Your task to perform on an android device: add a label to a message in the gmail app Image 0: 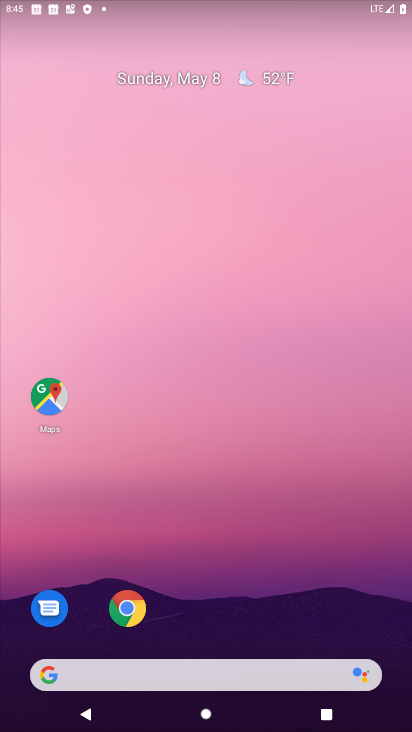
Step 0: drag from (269, 529) to (229, 26)
Your task to perform on an android device: add a label to a message in the gmail app Image 1: 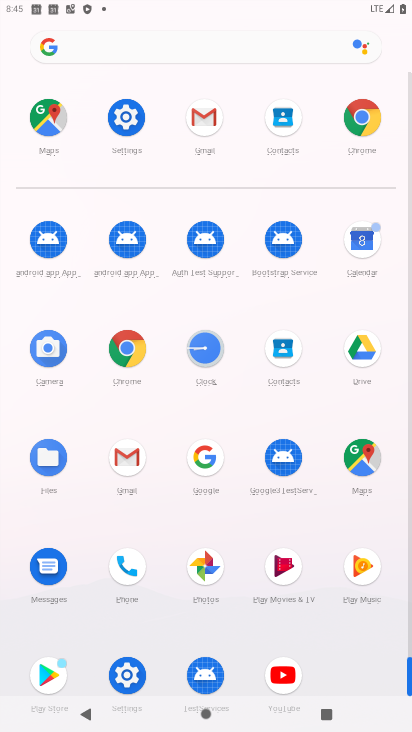
Step 1: drag from (5, 557) to (16, 292)
Your task to perform on an android device: add a label to a message in the gmail app Image 2: 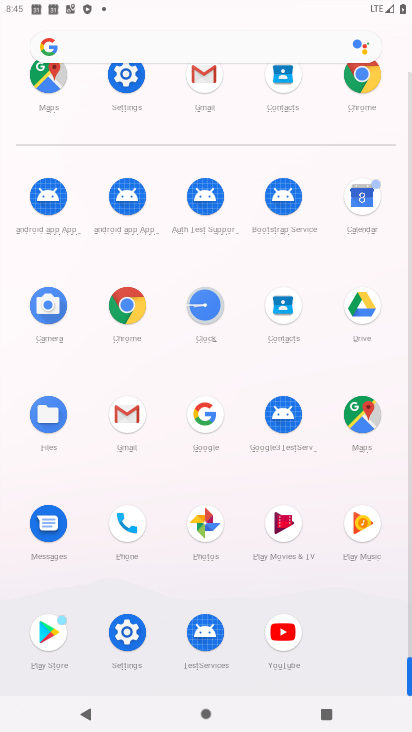
Step 2: click (123, 409)
Your task to perform on an android device: add a label to a message in the gmail app Image 3: 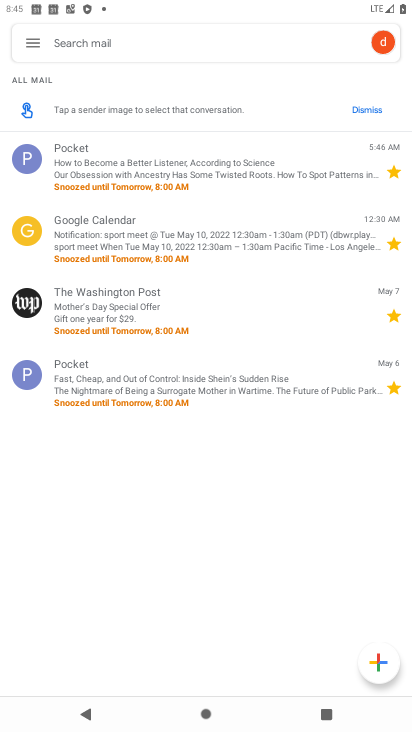
Step 3: click (242, 159)
Your task to perform on an android device: add a label to a message in the gmail app Image 4: 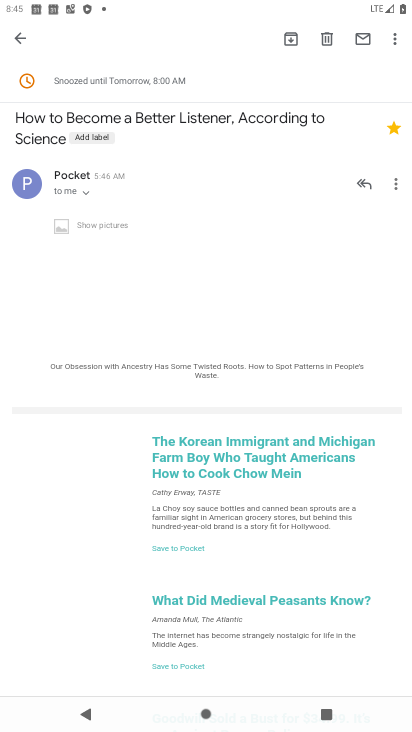
Step 4: click (94, 138)
Your task to perform on an android device: add a label to a message in the gmail app Image 5: 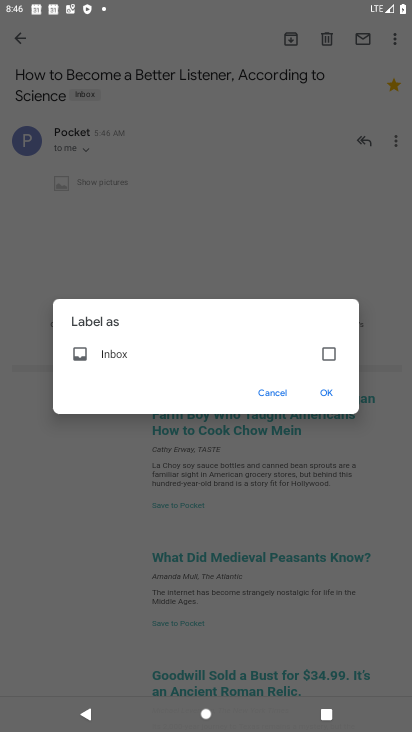
Step 5: click (331, 351)
Your task to perform on an android device: add a label to a message in the gmail app Image 6: 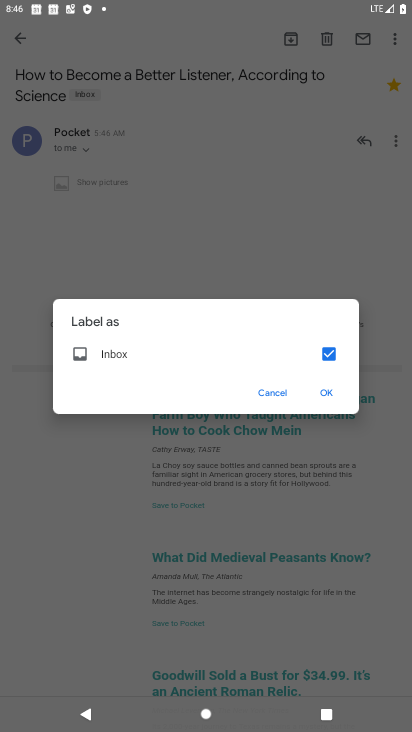
Step 6: click (320, 392)
Your task to perform on an android device: add a label to a message in the gmail app Image 7: 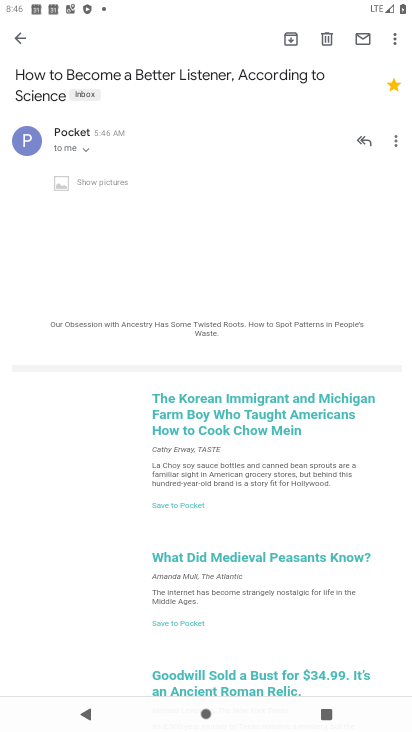
Step 7: task complete